Your task to perform on an android device: Open Google Image 0: 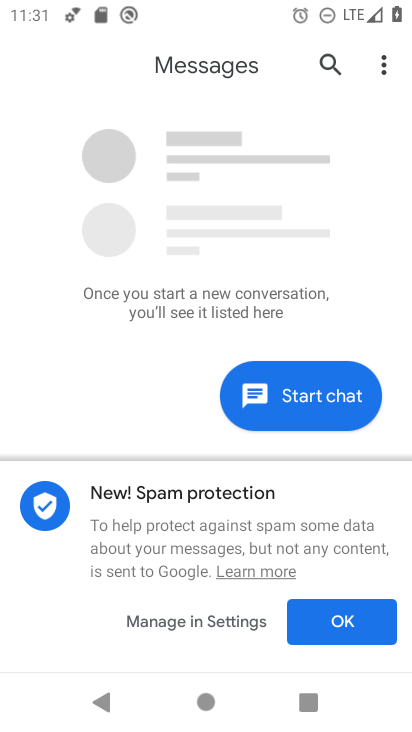
Step 0: press home button
Your task to perform on an android device: Open Google Image 1: 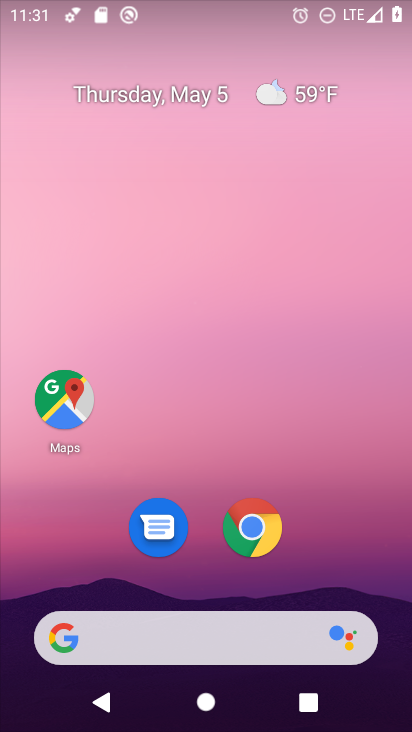
Step 1: drag from (262, 693) to (285, 56)
Your task to perform on an android device: Open Google Image 2: 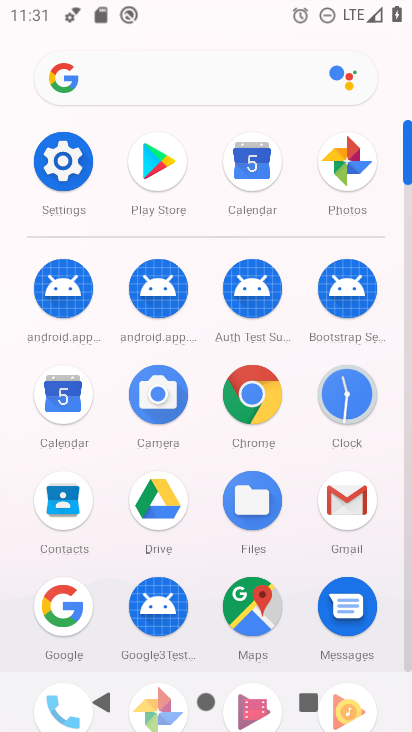
Step 2: click (70, 621)
Your task to perform on an android device: Open Google Image 3: 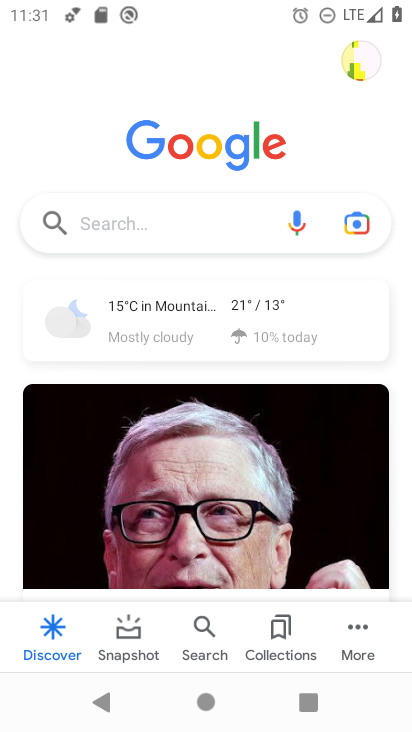
Step 3: task complete